Your task to perform on an android device: turn pop-ups off in chrome Image 0: 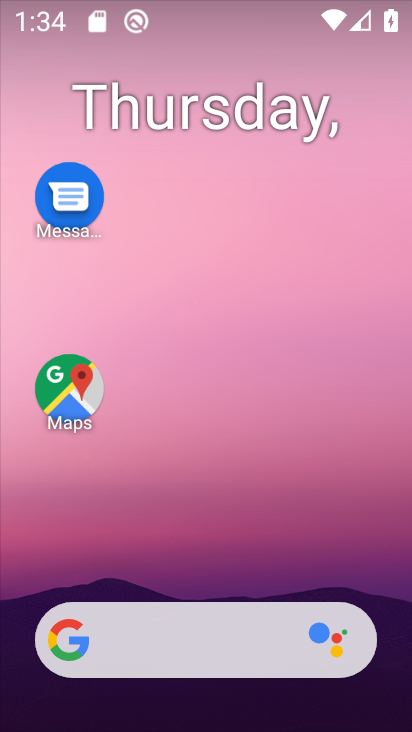
Step 0: drag from (226, 537) to (239, 159)
Your task to perform on an android device: turn pop-ups off in chrome Image 1: 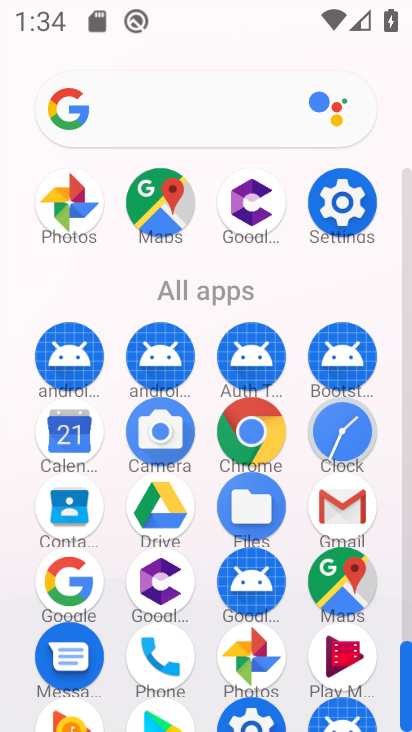
Step 1: click (250, 430)
Your task to perform on an android device: turn pop-ups off in chrome Image 2: 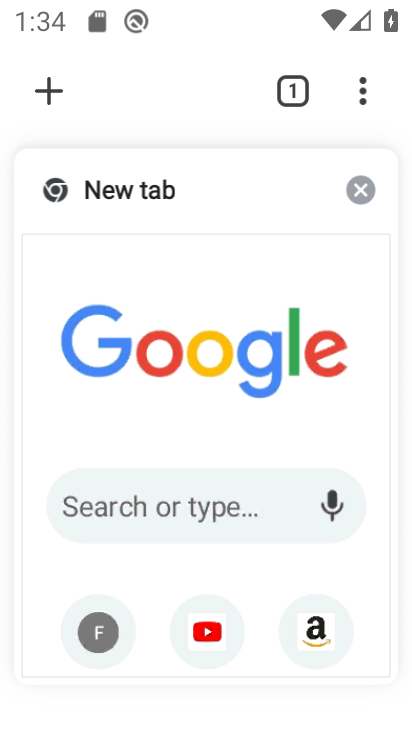
Step 2: click (148, 268)
Your task to perform on an android device: turn pop-ups off in chrome Image 3: 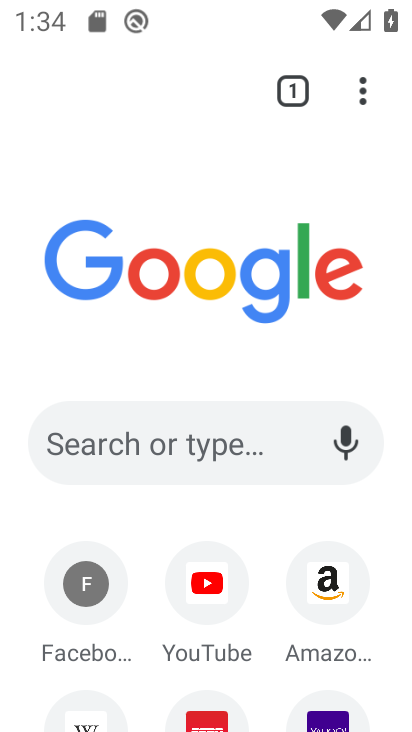
Step 3: click (363, 92)
Your task to perform on an android device: turn pop-ups off in chrome Image 4: 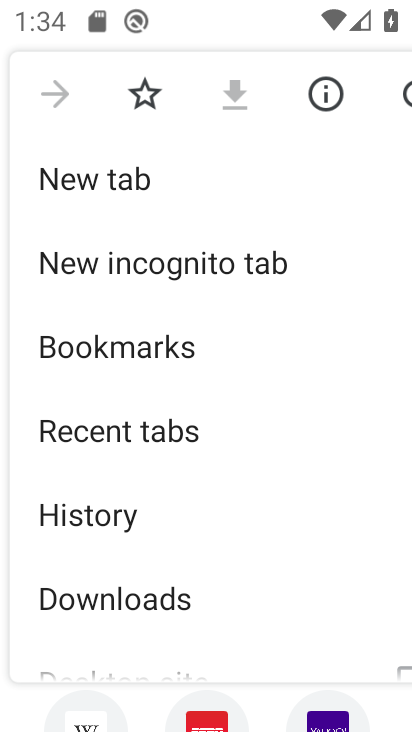
Step 4: drag from (198, 609) to (215, 214)
Your task to perform on an android device: turn pop-ups off in chrome Image 5: 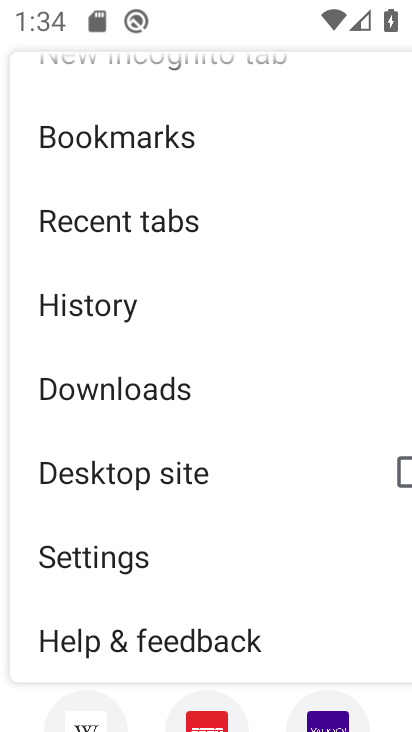
Step 5: click (81, 569)
Your task to perform on an android device: turn pop-ups off in chrome Image 6: 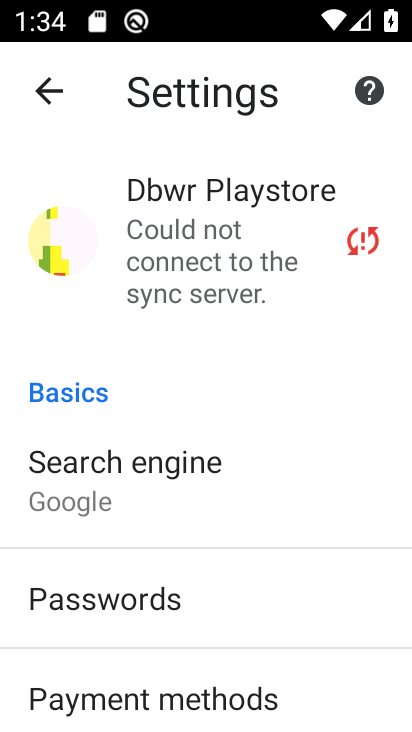
Step 6: drag from (128, 594) to (147, 276)
Your task to perform on an android device: turn pop-ups off in chrome Image 7: 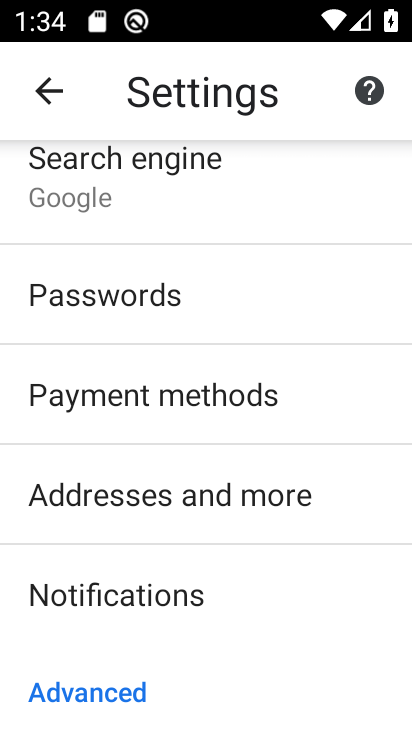
Step 7: drag from (165, 652) to (201, 314)
Your task to perform on an android device: turn pop-ups off in chrome Image 8: 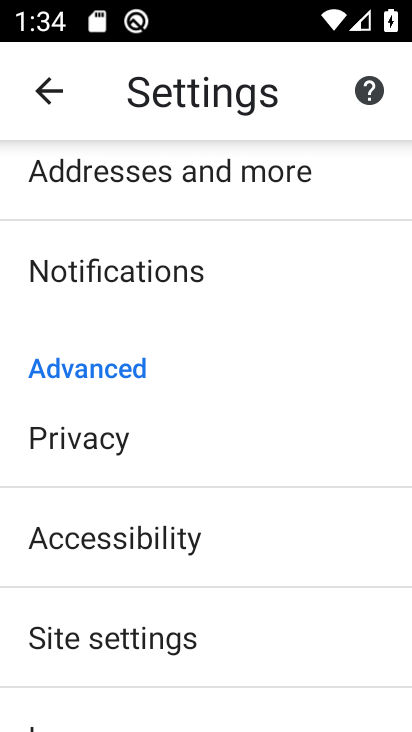
Step 8: click (159, 631)
Your task to perform on an android device: turn pop-ups off in chrome Image 9: 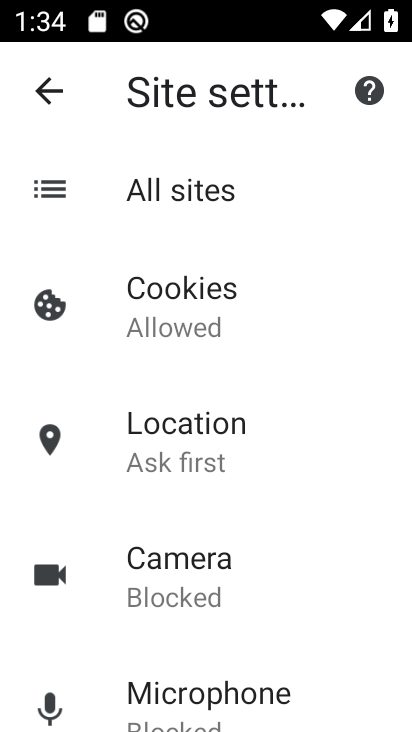
Step 9: drag from (169, 627) to (164, 341)
Your task to perform on an android device: turn pop-ups off in chrome Image 10: 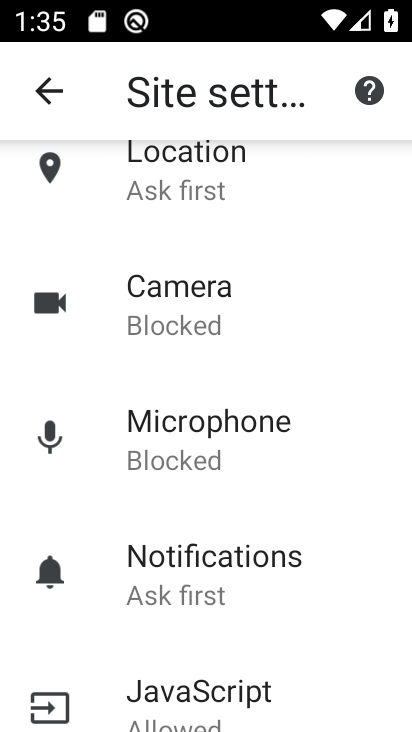
Step 10: drag from (174, 656) to (219, 355)
Your task to perform on an android device: turn pop-ups off in chrome Image 11: 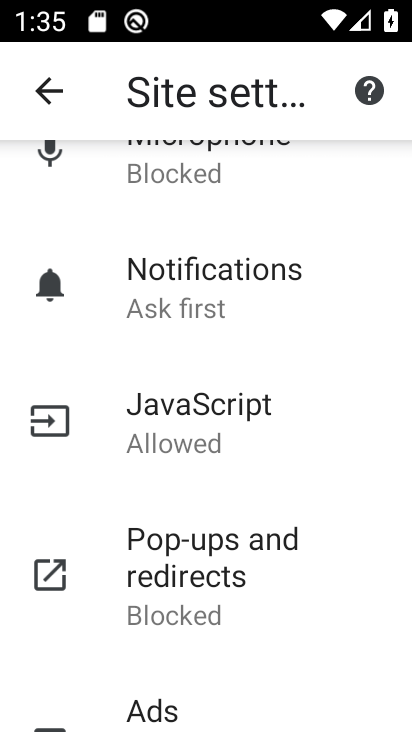
Step 11: click (209, 573)
Your task to perform on an android device: turn pop-ups off in chrome Image 12: 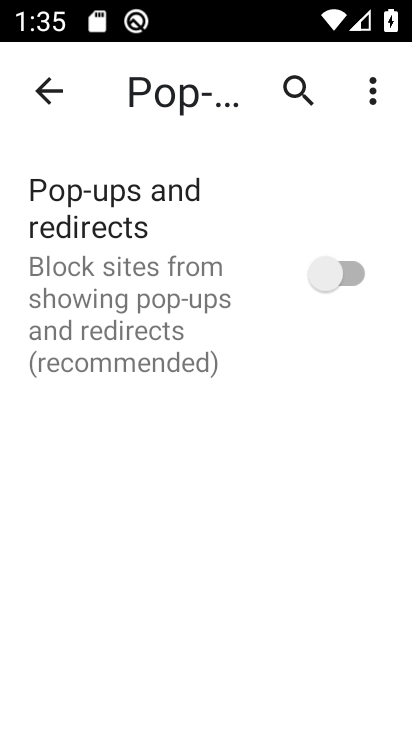
Step 12: click (336, 272)
Your task to perform on an android device: turn pop-ups off in chrome Image 13: 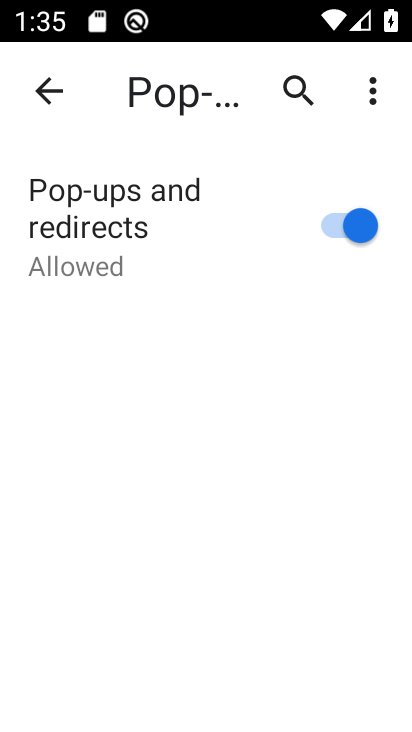
Step 13: task complete